Your task to perform on an android device: See recent photos Image 0: 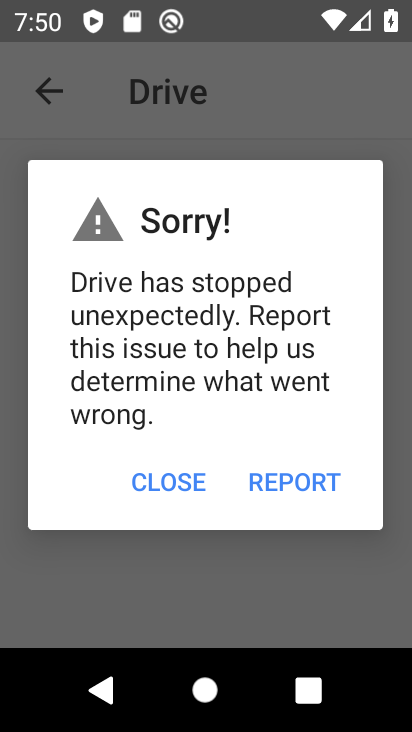
Step 0: press home button
Your task to perform on an android device: See recent photos Image 1: 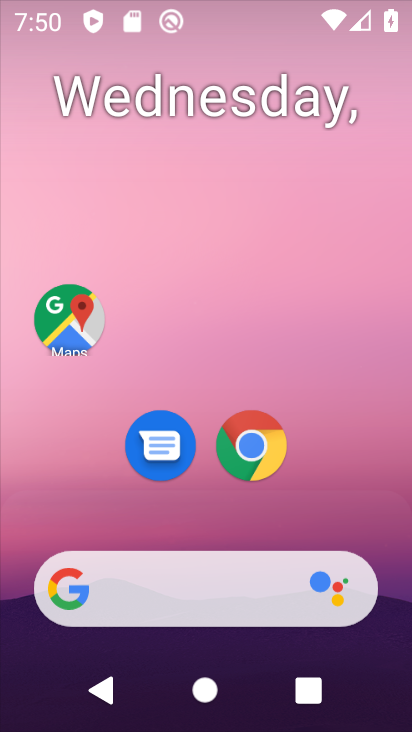
Step 1: drag from (291, 597) to (268, 215)
Your task to perform on an android device: See recent photos Image 2: 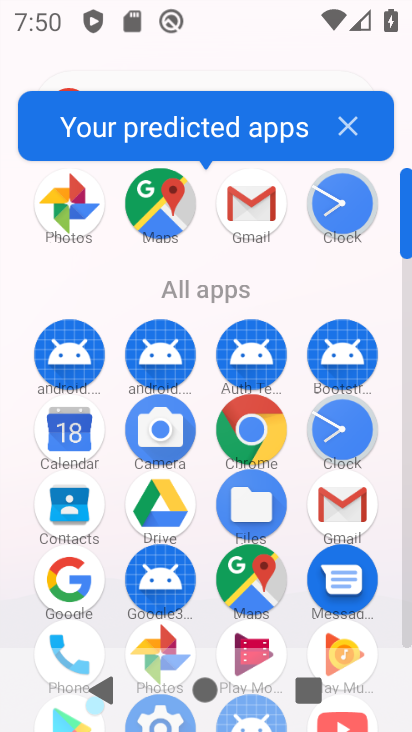
Step 2: drag from (194, 615) to (224, 311)
Your task to perform on an android device: See recent photos Image 3: 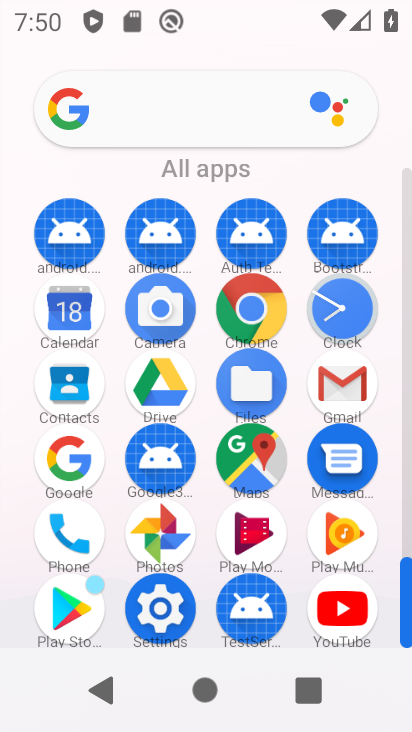
Step 3: click (160, 518)
Your task to perform on an android device: See recent photos Image 4: 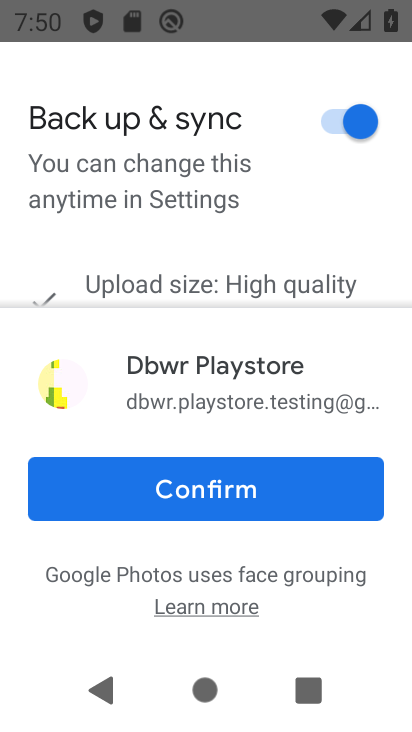
Step 4: click (217, 486)
Your task to perform on an android device: See recent photos Image 5: 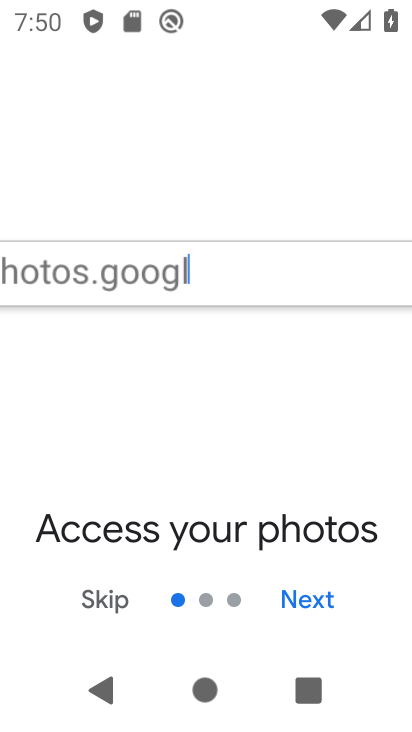
Step 5: click (298, 592)
Your task to perform on an android device: See recent photos Image 6: 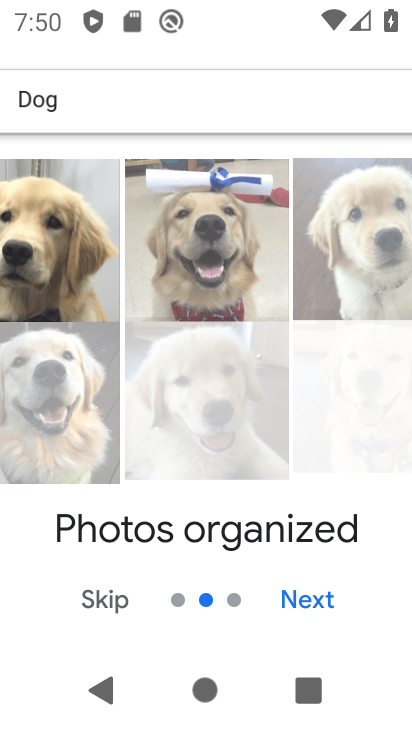
Step 6: click (310, 605)
Your task to perform on an android device: See recent photos Image 7: 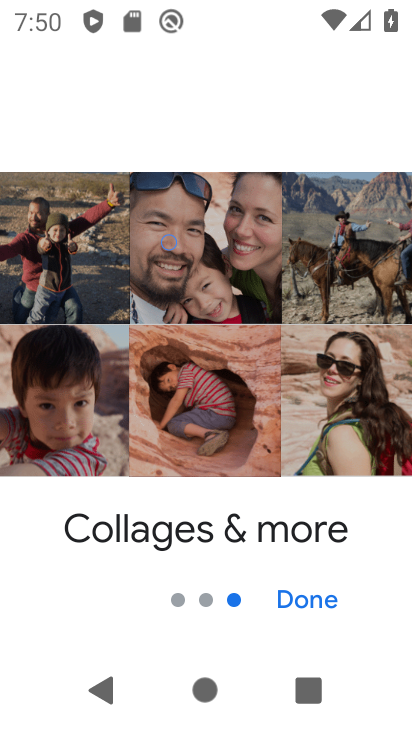
Step 7: click (311, 606)
Your task to perform on an android device: See recent photos Image 8: 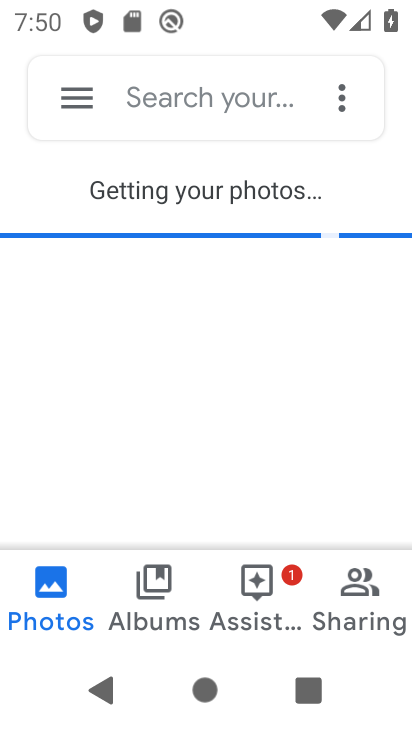
Step 8: click (156, 596)
Your task to perform on an android device: See recent photos Image 9: 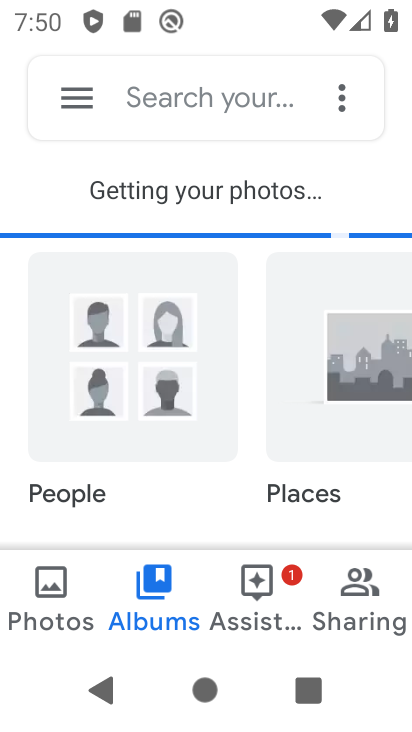
Step 9: click (30, 583)
Your task to perform on an android device: See recent photos Image 10: 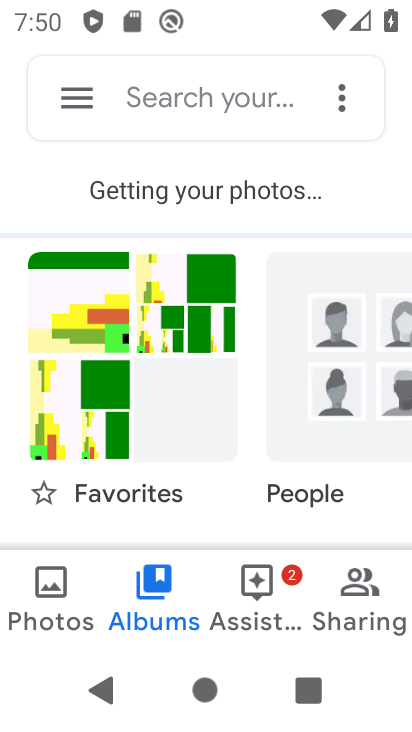
Step 10: click (49, 601)
Your task to perform on an android device: See recent photos Image 11: 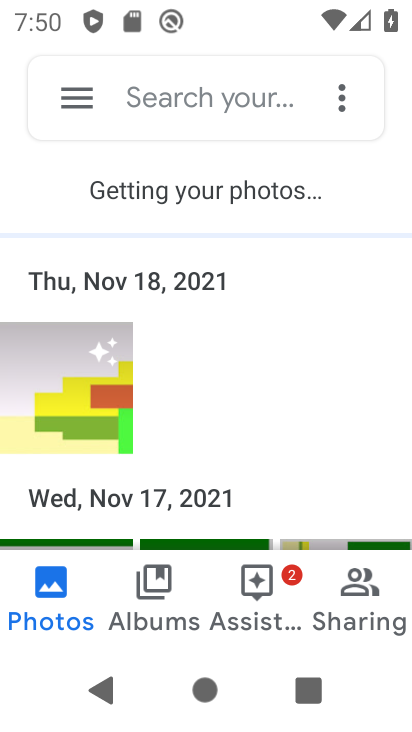
Step 11: click (75, 393)
Your task to perform on an android device: See recent photos Image 12: 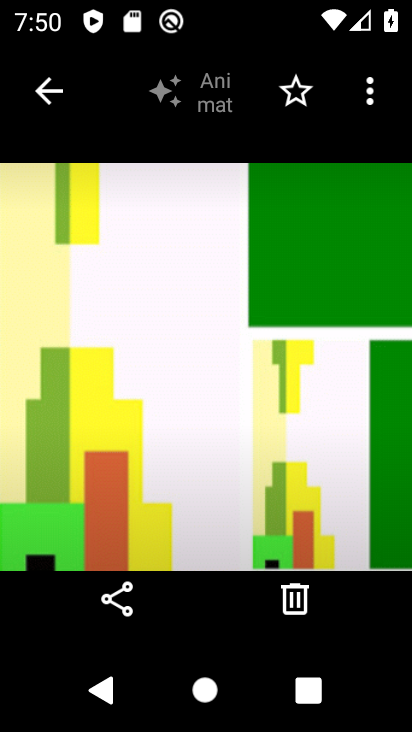
Step 12: task complete